Your task to perform on an android device: check google app version Image 0: 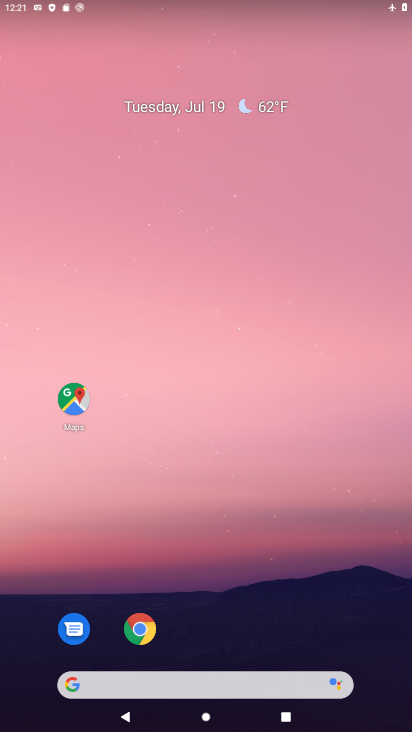
Step 0: drag from (234, 653) to (185, 100)
Your task to perform on an android device: check google app version Image 1: 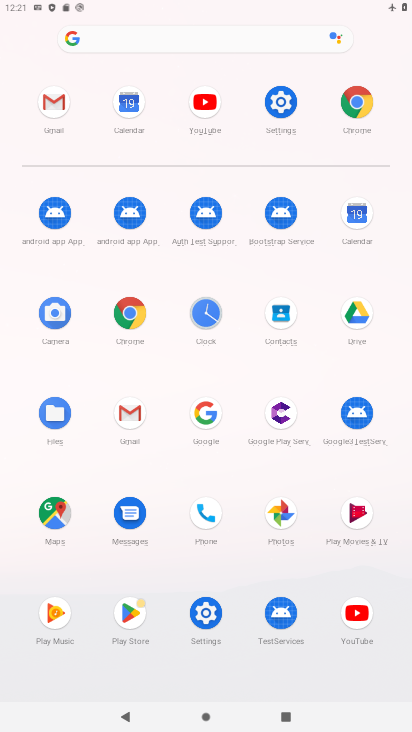
Step 1: click (208, 413)
Your task to perform on an android device: check google app version Image 2: 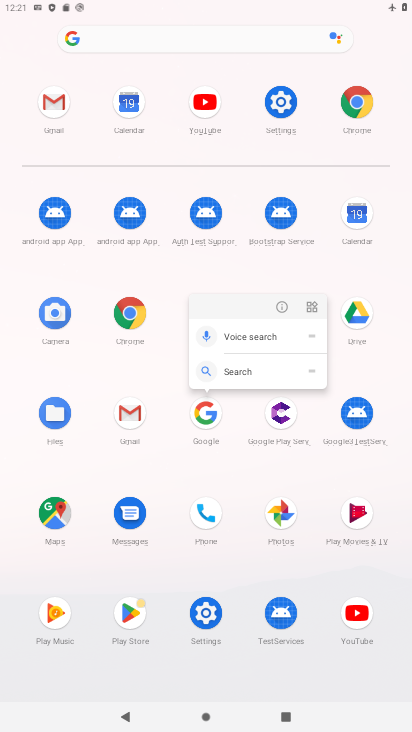
Step 2: click (275, 303)
Your task to perform on an android device: check google app version Image 3: 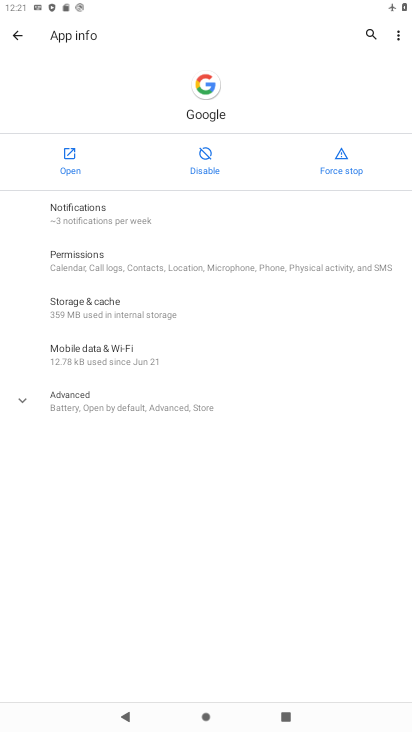
Step 3: click (83, 397)
Your task to perform on an android device: check google app version Image 4: 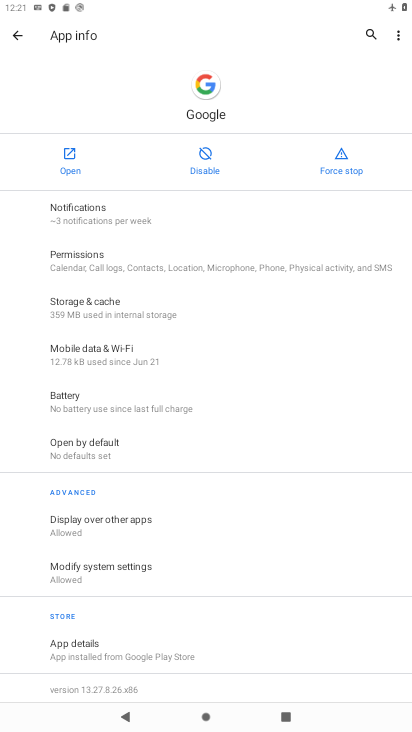
Step 4: task complete